Your task to perform on an android device: turn off improve location accuracy Image 0: 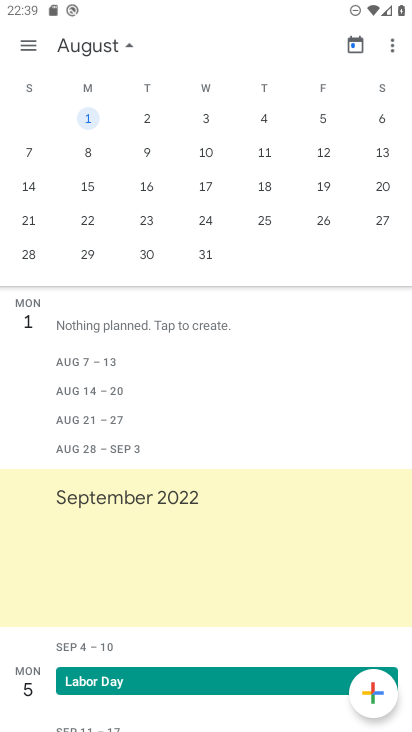
Step 0: press home button
Your task to perform on an android device: turn off improve location accuracy Image 1: 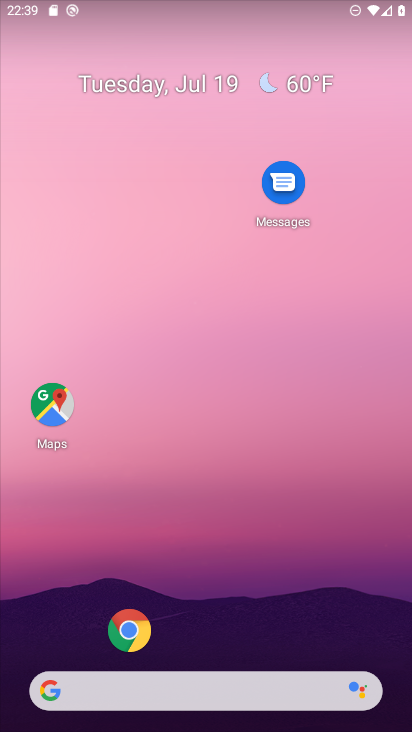
Step 1: drag from (30, 692) to (135, 156)
Your task to perform on an android device: turn off improve location accuracy Image 2: 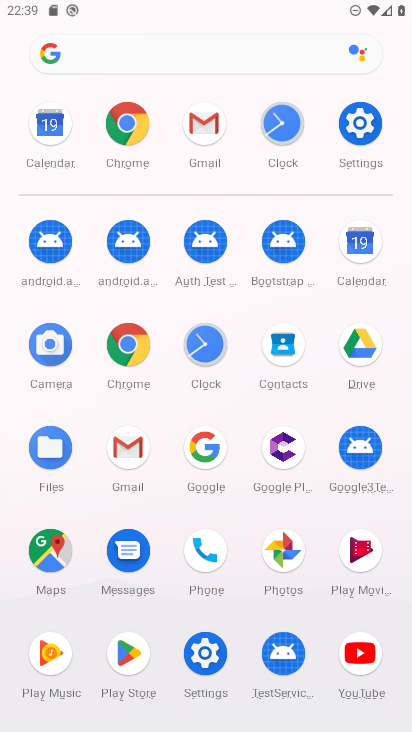
Step 2: click (204, 648)
Your task to perform on an android device: turn off improve location accuracy Image 3: 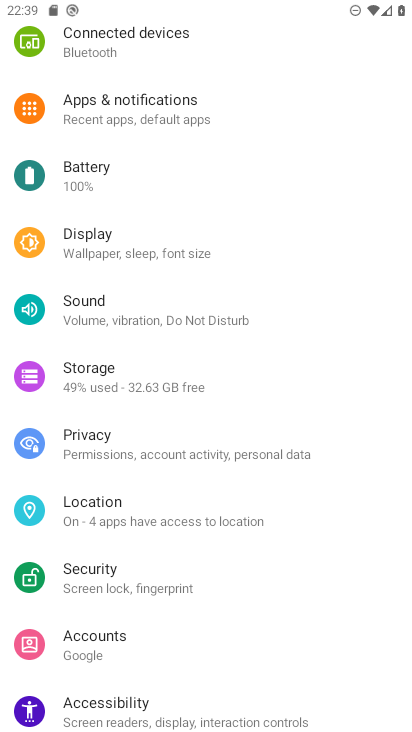
Step 3: click (127, 491)
Your task to perform on an android device: turn off improve location accuracy Image 4: 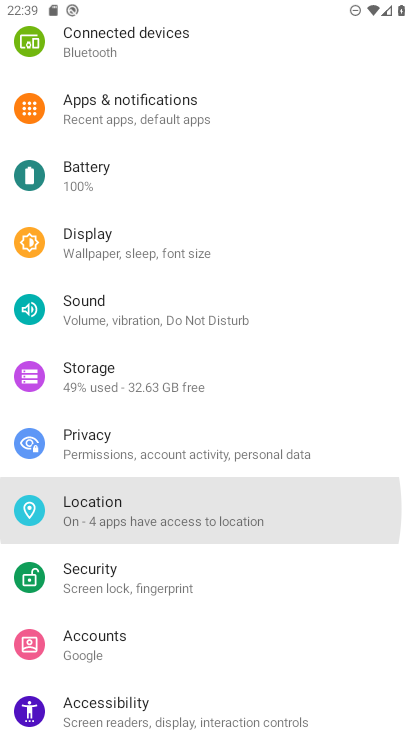
Step 4: click (125, 499)
Your task to perform on an android device: turn off improve location accuracy Image 5: 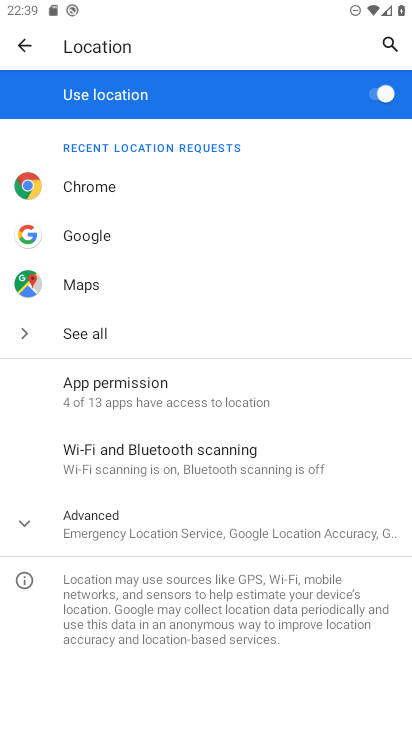
Step 5: click (115, 524)
Your task to perform on an android device: turn off improve location accuracy Image 6: 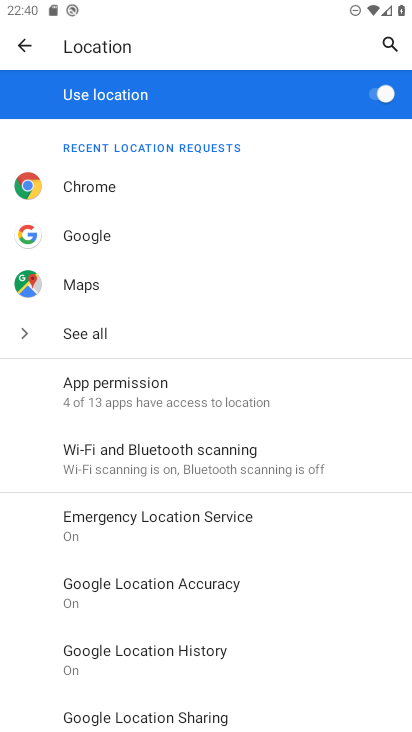
Step 6: click (126, 597)
Your task to perform on an android device: turn off improve location accuracy Image 7: 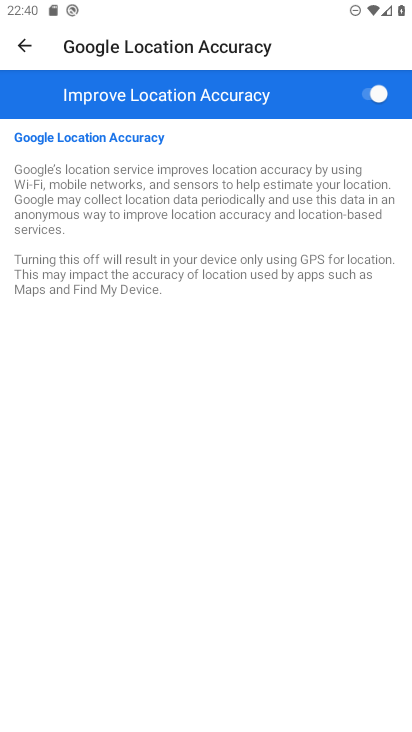
Step 7: click (381, 89)
Your task to perform on an android device: turn off improve location accuracy Image 8: 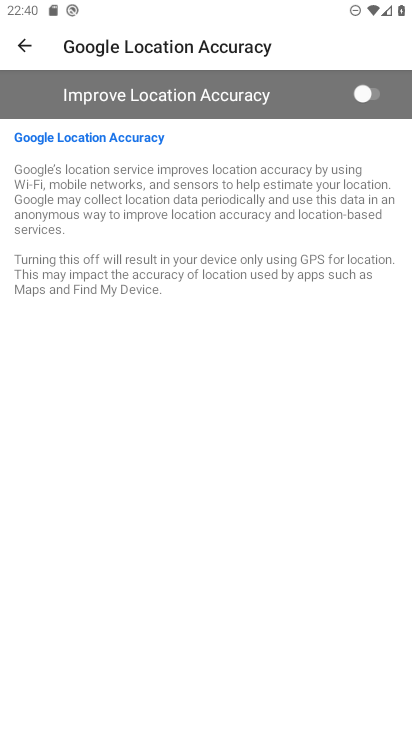
Step 8: task complete